Your task to perform on an android device: Open display settings Image 0: 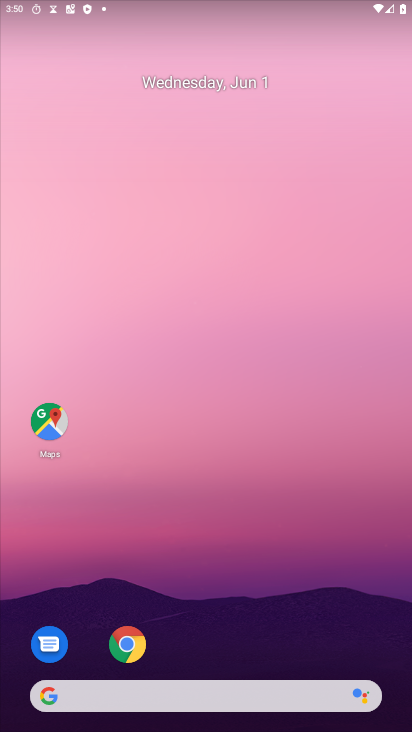
Step 0: press home button
Your task to perform on an android device: Open display settings Image 1: 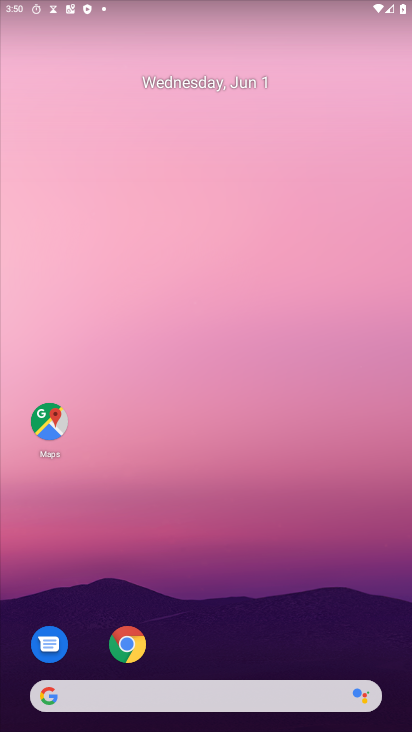
Step 1: drag from (342, 644) to (347, 193)
Your task to perform on an android device: Open display settings Image 2: 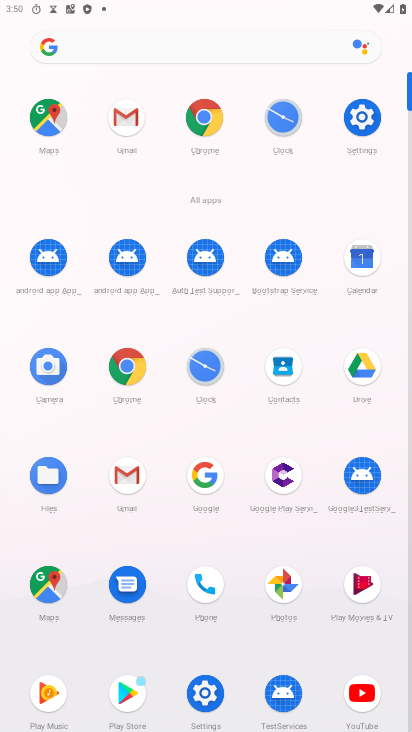
Step 2: click (361, 123)
Your task to perform on an android device: Open display settings Image 3: 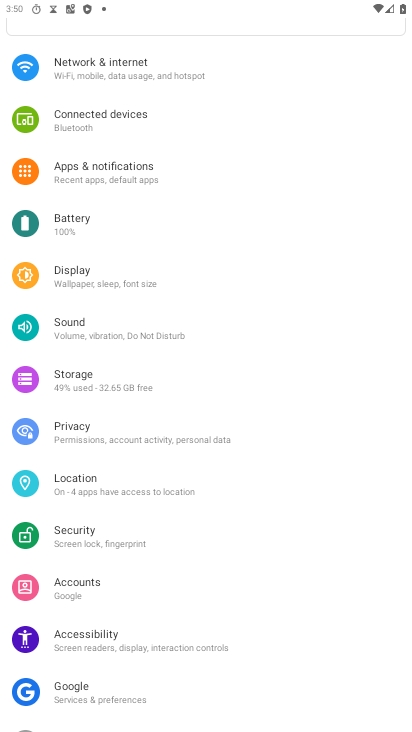
Step 3: click (101, 280)
Your task to perform on an android device: Open display settings Image 4: 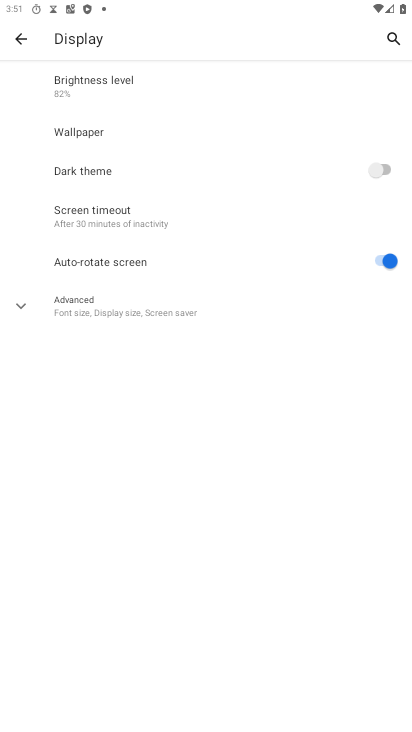
Step 4: task complete